Your task to perform on an android device: check data usage Image 0: 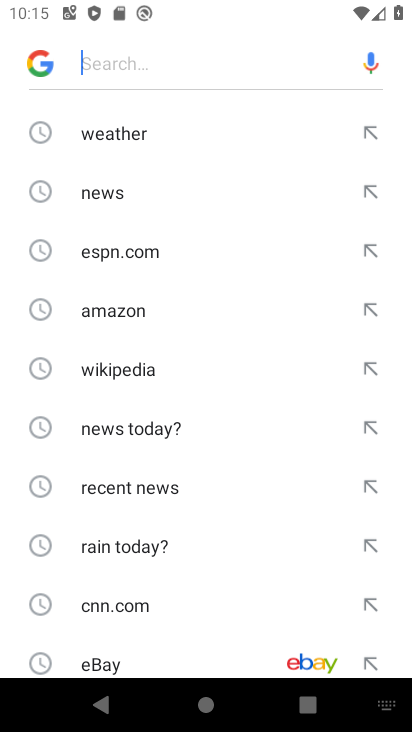
Step 0: press home button
Your task to perform on an android device: check data usage Image 1: 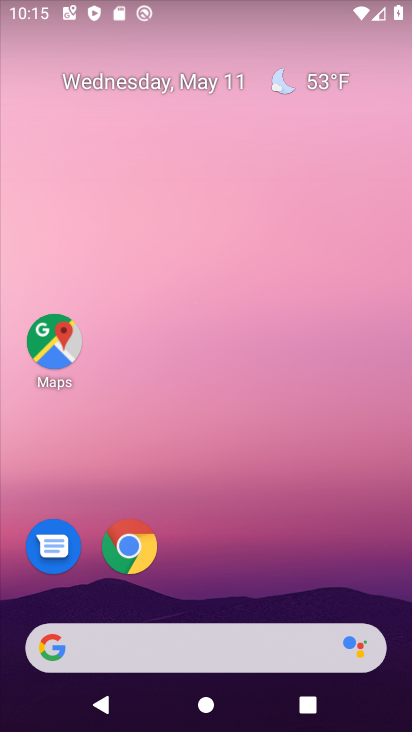
Step 1: drag from (314, 574) to (249, 36)
Your task to perform on an android device: check data usage Image 2: 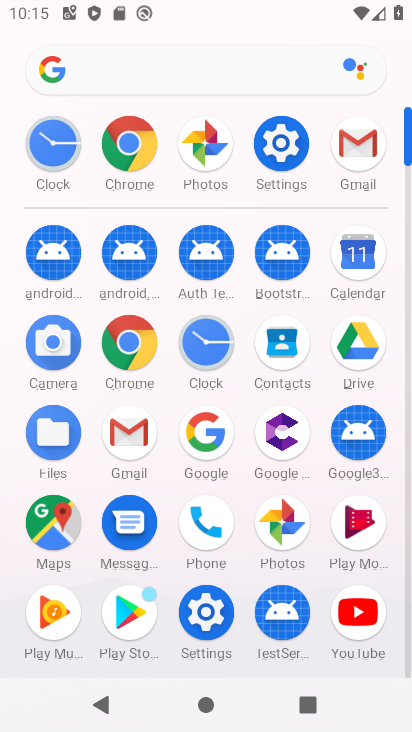
Step 2: click (263, 151)
Your task to perform on an android device: check data usage Image 3: 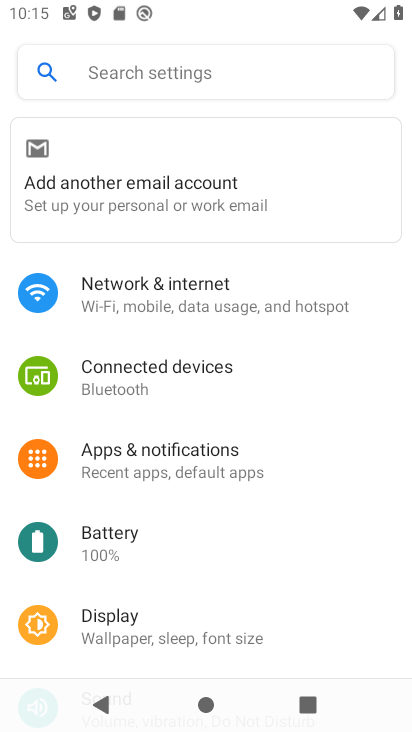
Step 3: drag from (137, 587) to (169, 270)
Your task to perform on an android device: check data usage Image 4: 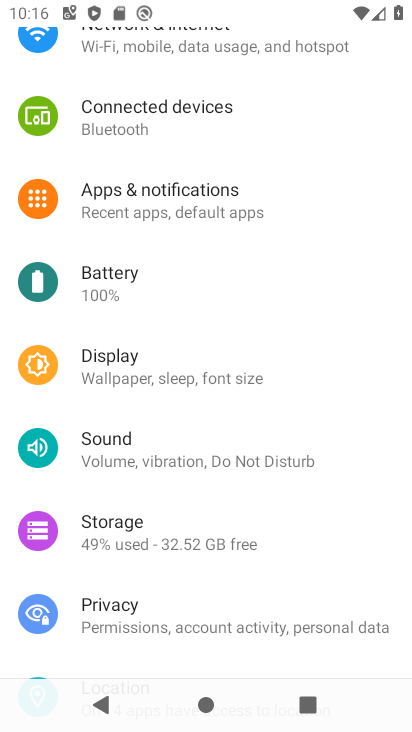
Step 4: click (209, 32)
Your task to perform on an android device: check data usage Image 5: 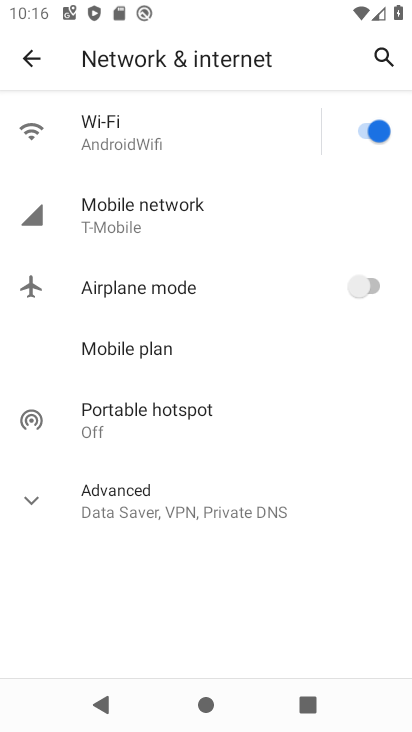
Step 5: click (188, 236)
Your task to perform on an android device: check data usage Image 6: 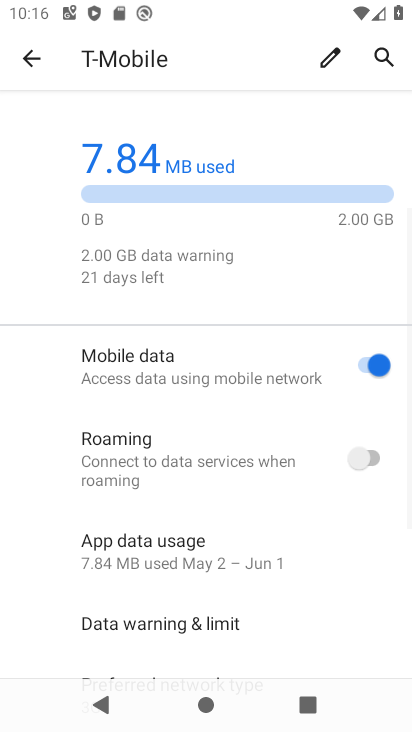
Step 6: drag from (152, 609) to (244, 220)
Your task to perform on an android device: check data usage Image 7: 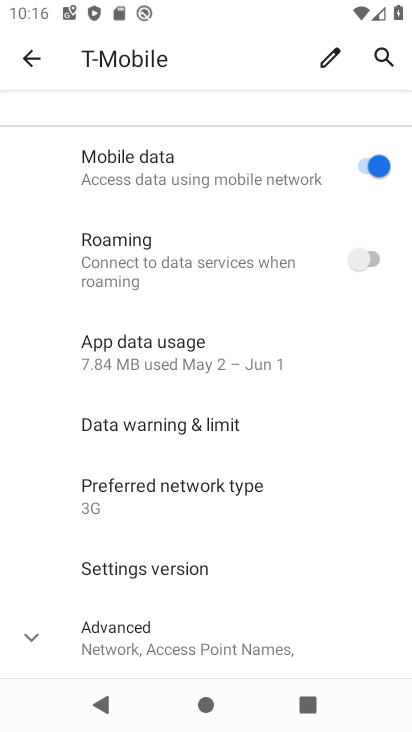
Step 7: click (182, 356)
Your task to perform on an android device: check data usage Image 8: 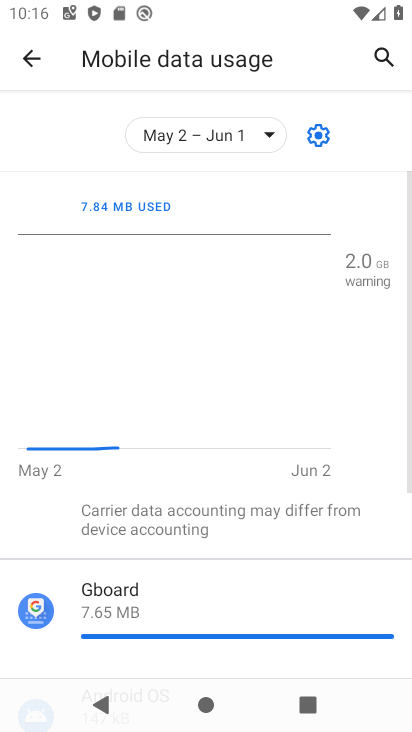
Step 8: task complete